Your task to perform on an android device: When is my next appointment? Image 0: 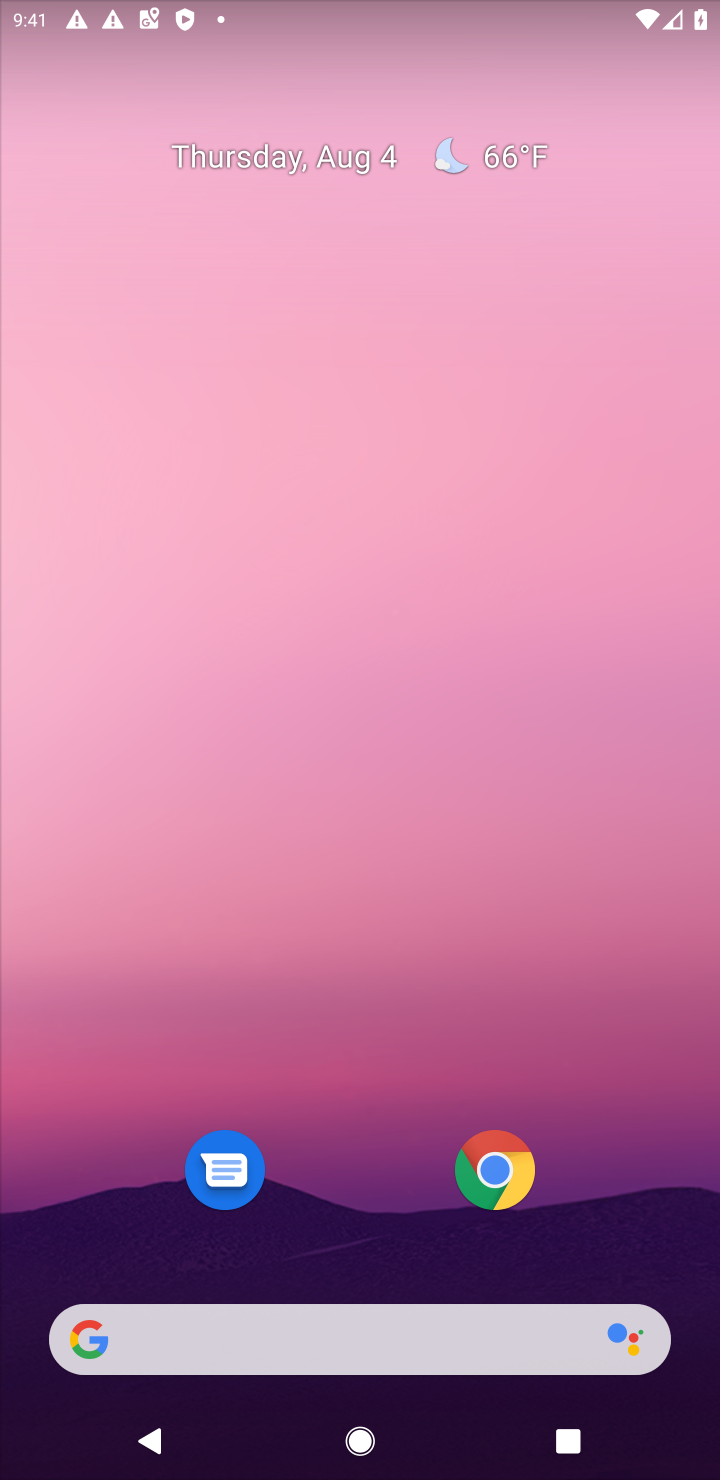
Step 0: drag from (323, 1278) to (250, 167)
Your task to perform on an android device: When is my next appointment? Image 1: 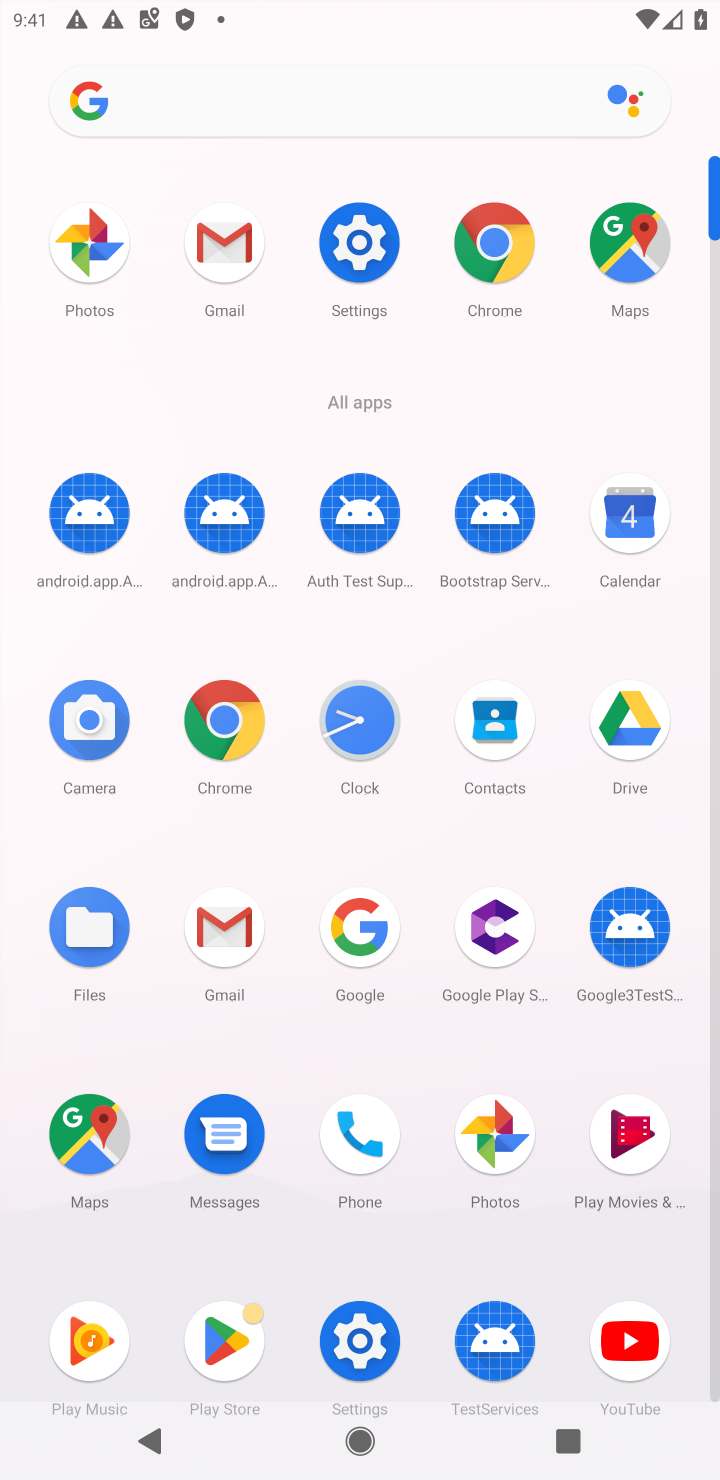
Step 1: click (624, 542)
Your task to perform on an android device: When is my next appointment? Image 2: 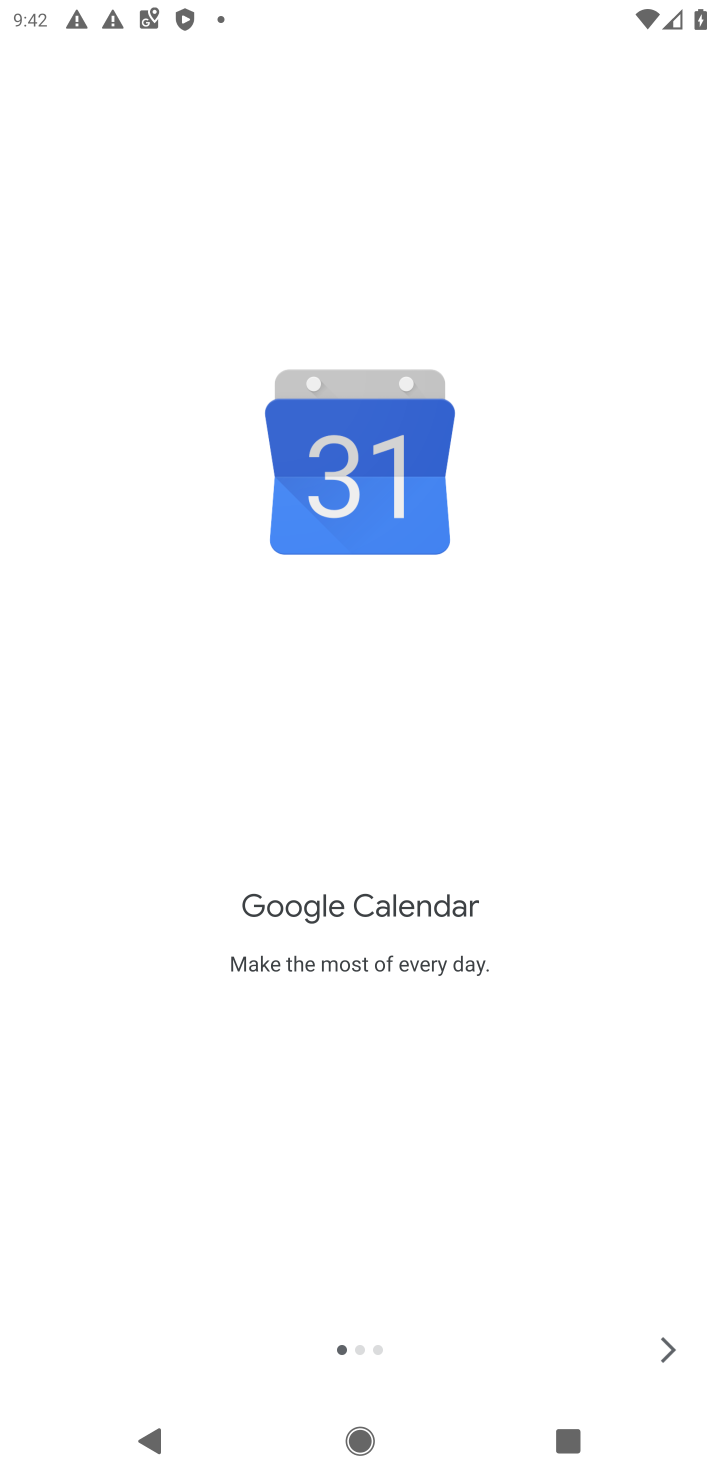
Step 2: click (662, 1350)
Your task to perform on an android device: When is my next appointment? Image 3: 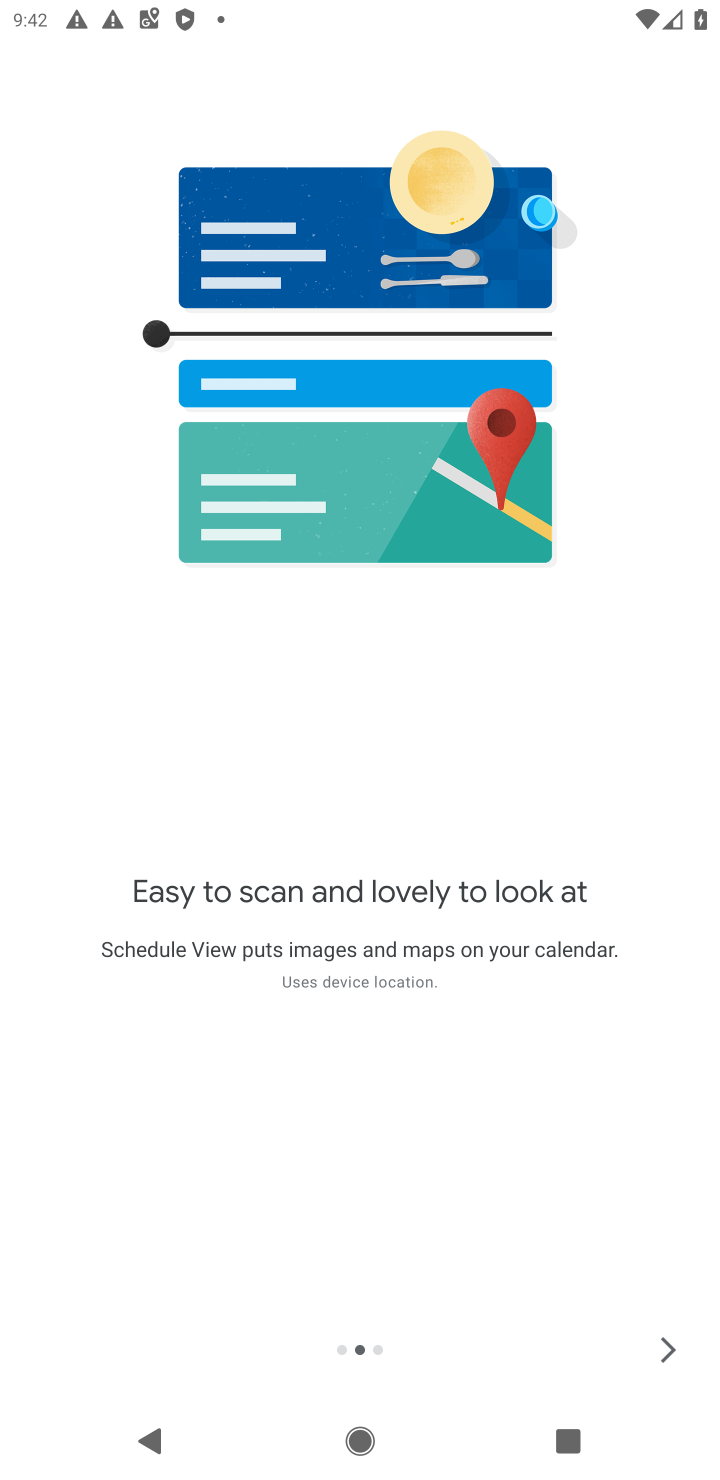
Step 3: click (659, 1343)
Your task to perform on an android device: When is my next appointment? Image 4: 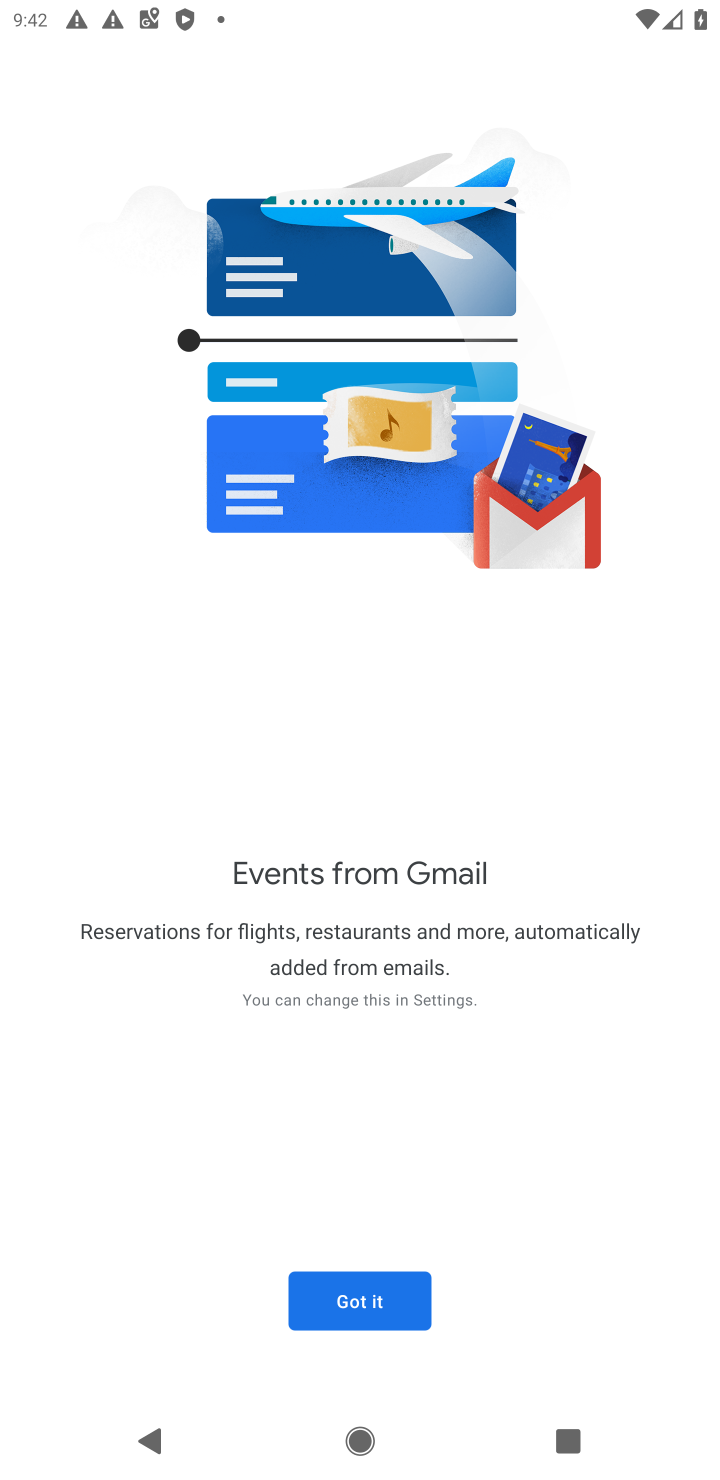
Step 4: click (379, 1293)
Your task to perform on an android device: When is my next appointment? Image 5: 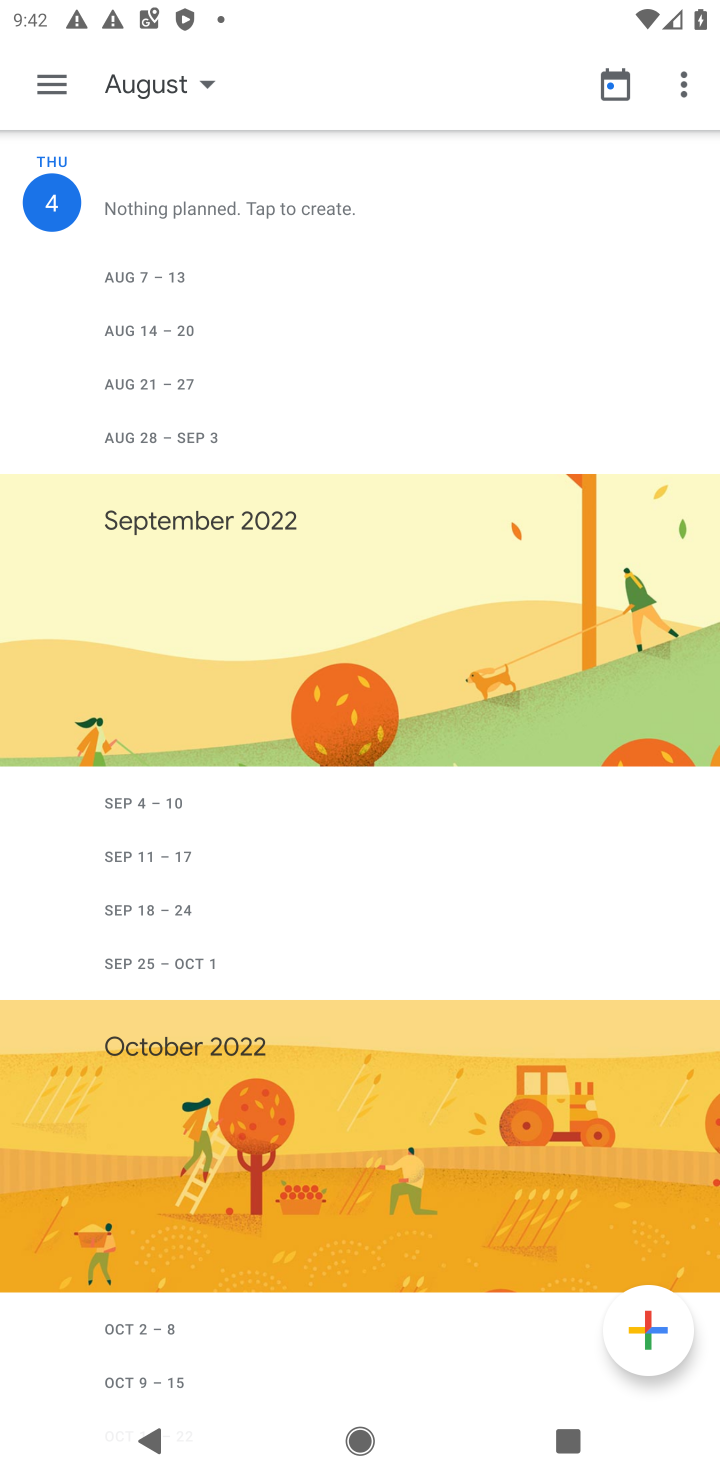
Step 5: click (149, 88)
Your task to perform on an android device: When is my next appointment? Image 6: 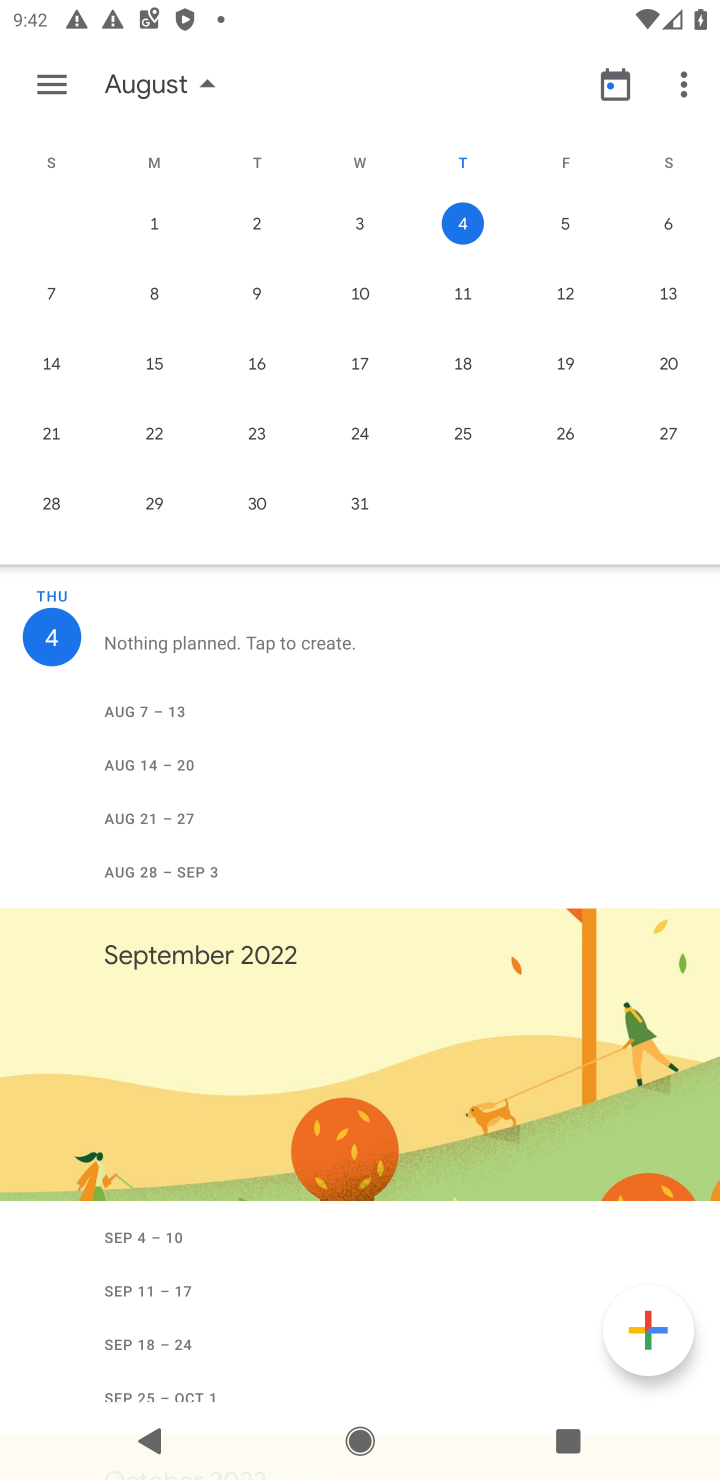
Step 6: task complete